Your task to perform on an android device: Go to Wikipedia Image 0: 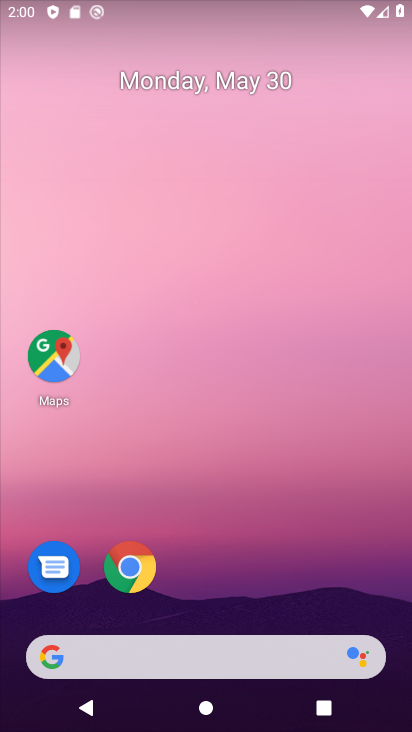
Step 0: click (136, 567)
Your task to perform on an android device: Go to Wikipedia Image 1: 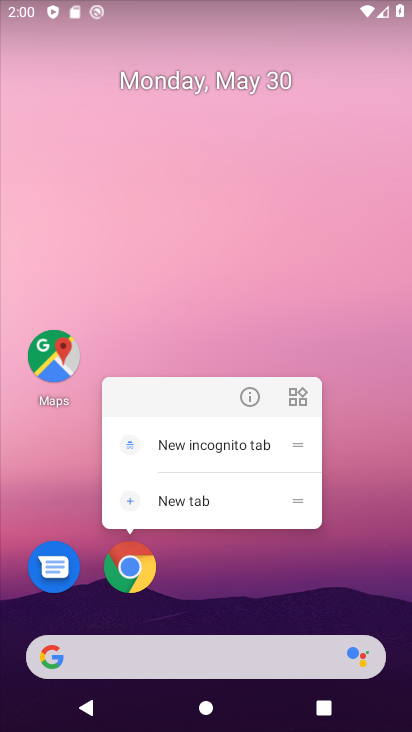
Step 1: click (127, 578)
Your task to perform on an android device: Go to Wikipedia Image 2: 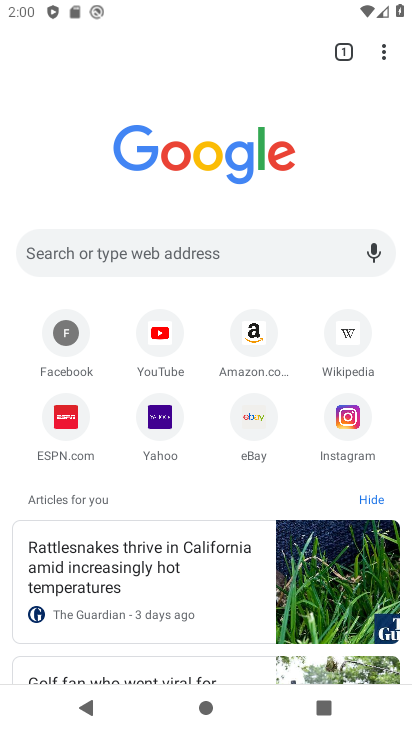
Step 2: click (351, 346)
Your task to perform on an android device: Go to Wikipedia Image 3: 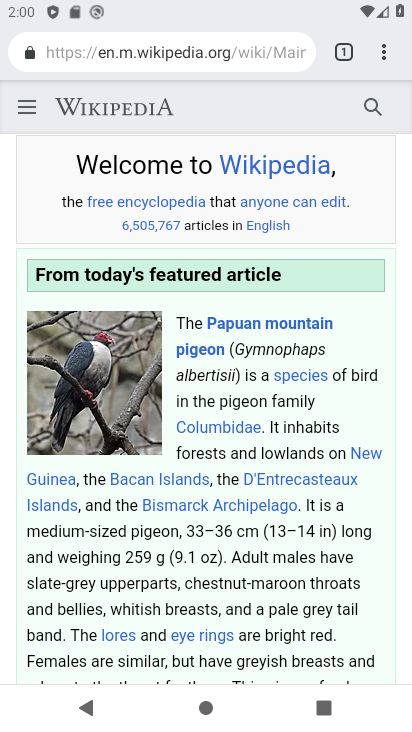
Step 3: task complete